Your task to perform on an android device: change your default location settings in chrome Image 0: 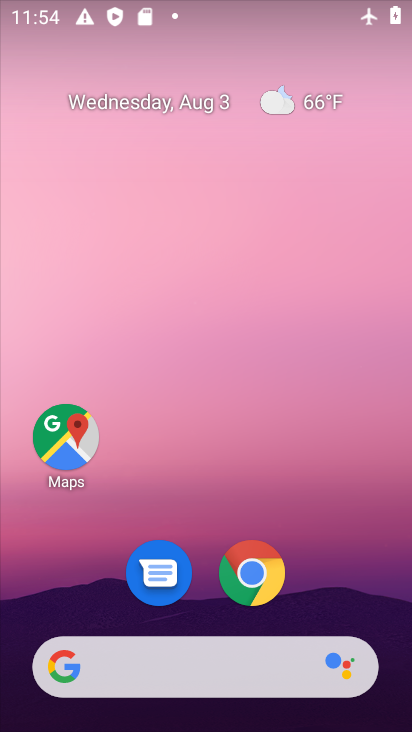
Step 0: drag from (378, 547) to (355, 193)
Your task to perform on an android device: change your default location settings in chrome Image 1: 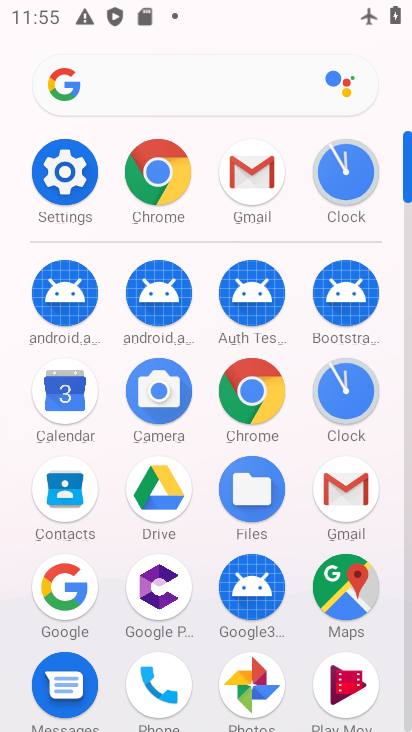
Step 1: click (247, 396)
Your task to perform on an android device: change your default location settings in chrome Image 2: 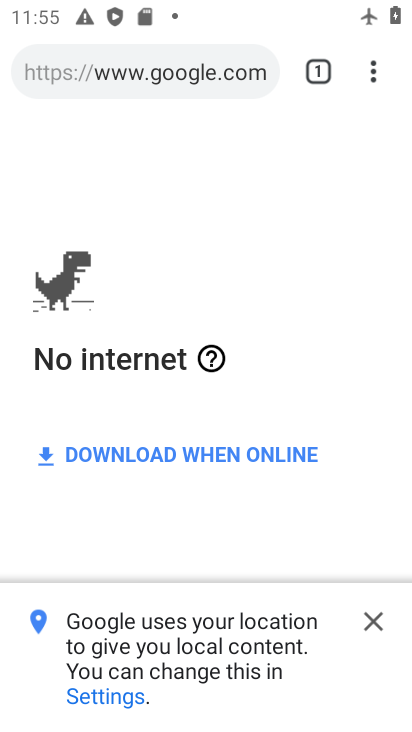
Step 2: drag from (369, 71) to (144, 556)
Your task to perform on an android device: change your default location settings in chrome Image 3: 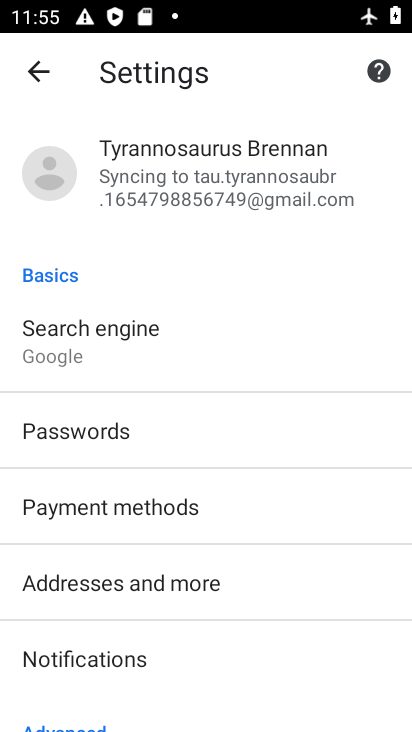
Step 3: drag from (323, 608) to (350, 274)
Your task to perform on an android device: change your default location settings in chrome Image 4: 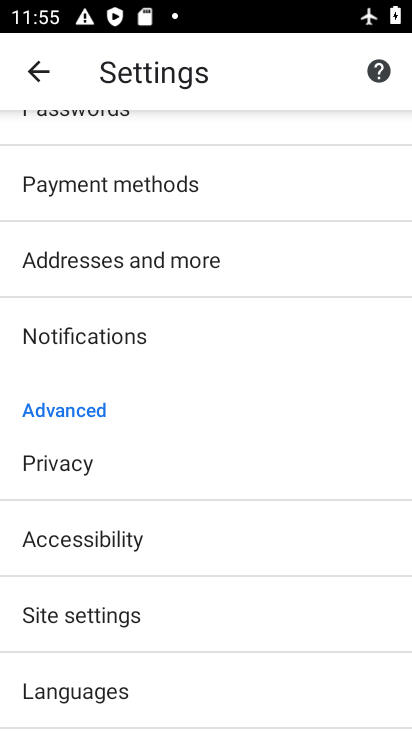
Step 4: click (87, 624)
Your task to perform on an android device: change your default location settings in chrome Image 5: 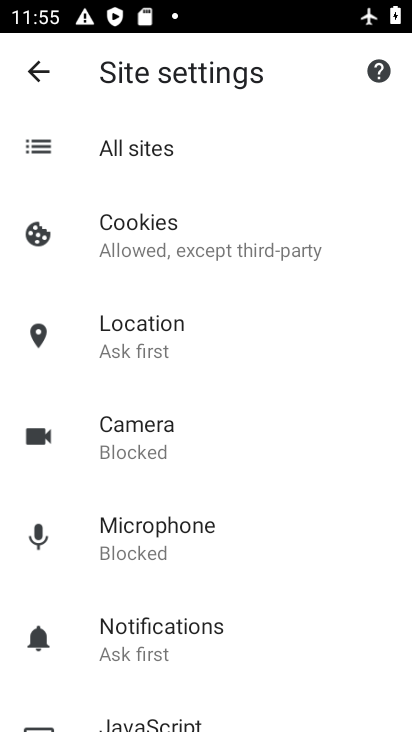
Step 5: click (148, 334)
Your task to perform on an android device: change your default location settings in chrome Image 6: 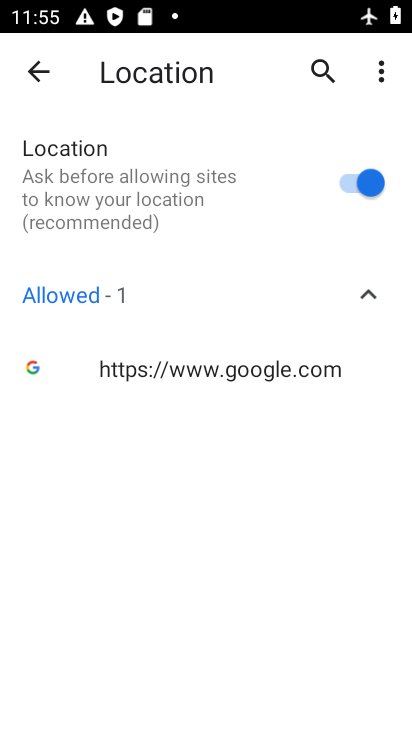
Step 6: click (359, 199)
Your task to perform on an android device: change your default location settings in chrome Image 7: 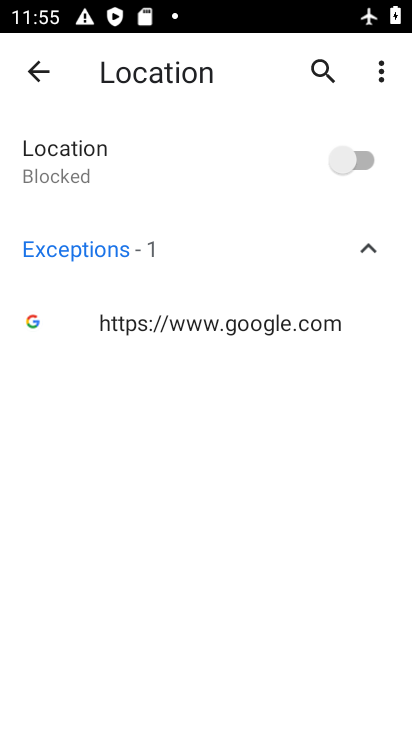
Step 7: task complete